Your task to perform on an android device: Go to battery settings Image 0: 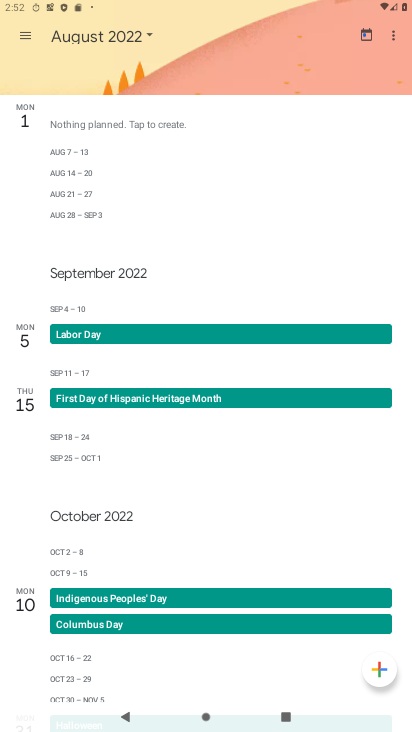
Step 0: press home button
Your task to perform on an android device: Go to battery settings Image 1: 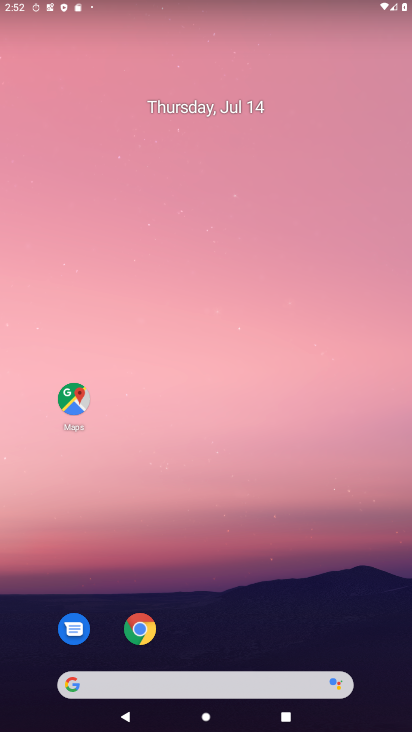
Step 1: drag from (245, 626) to (329, 18)
Your task to perform on an android device: Go to battery settings Image 2: 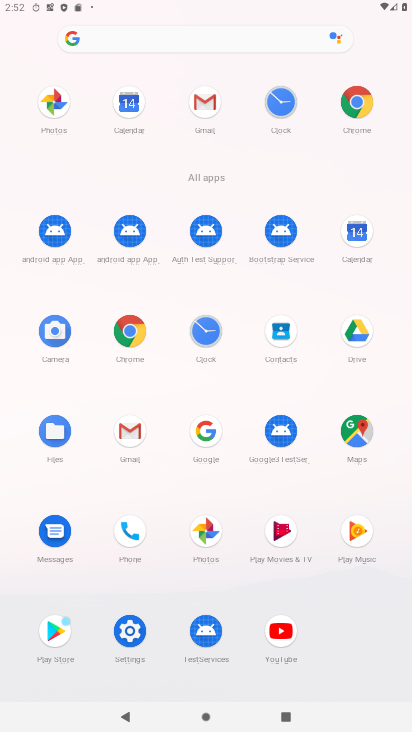
Step 2: click (123, 631)
Your task to perform on an android device: Go to battery settings Image 3: 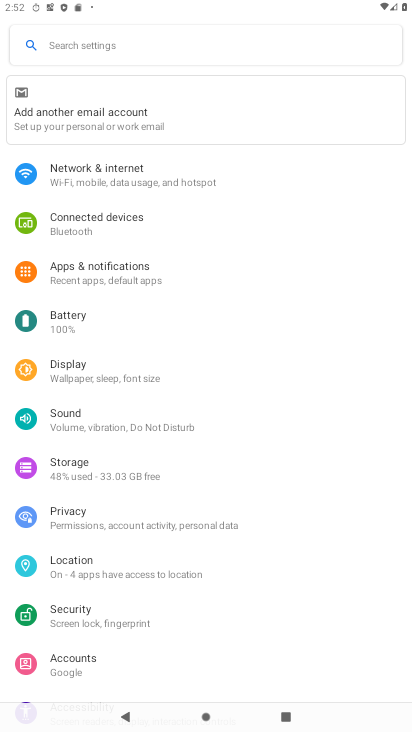
Step 3: click (68, 327)
Your task to perform on an android device: Go to battery settings Image 4: 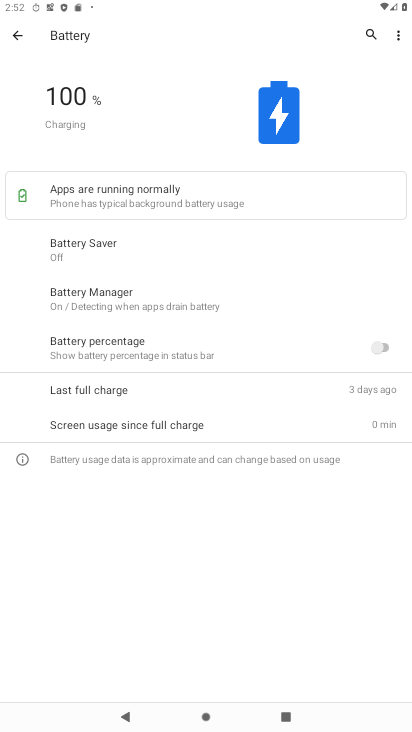
Step 4: task complete